Your task to perform on an android device: Clear the shopping cart on bestbuy. Search for "asus zenbook" on bestbuy, select the first entry, add it to the cart, then select checkout. Image 0: 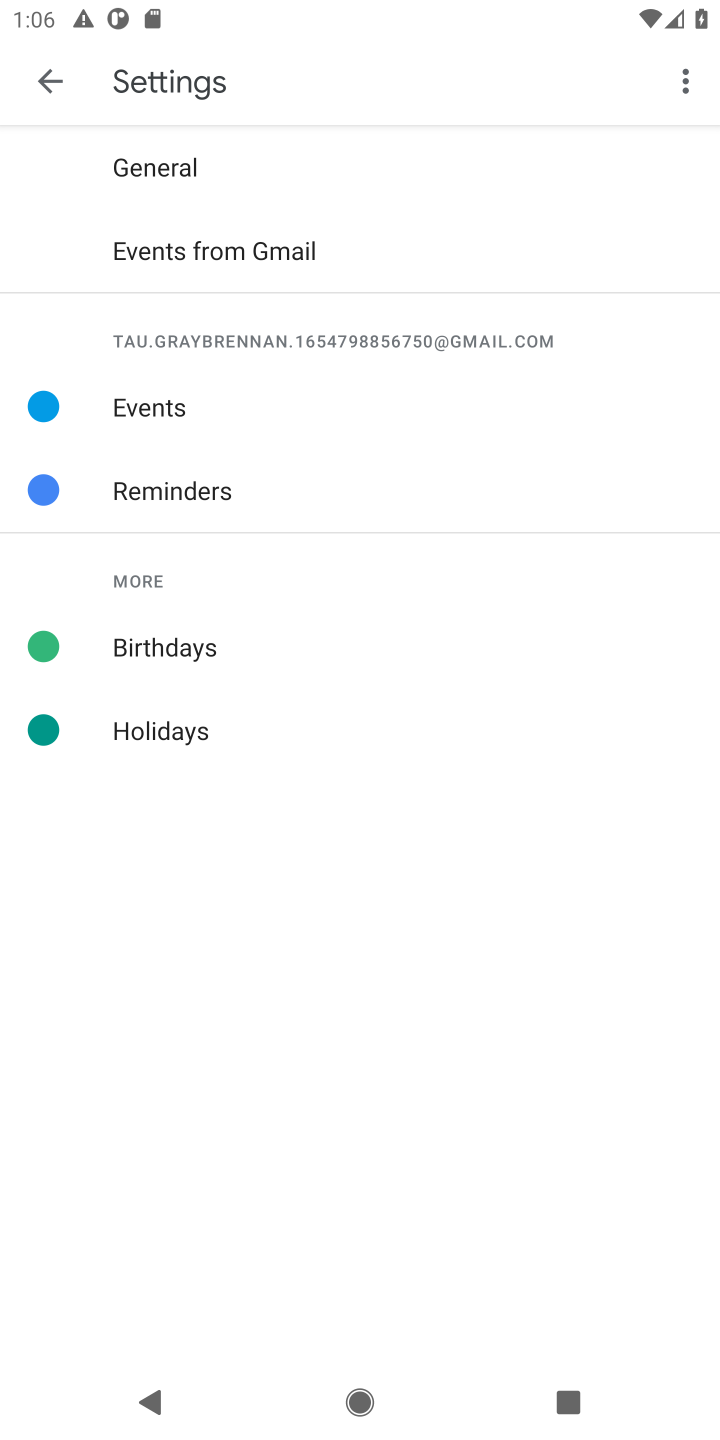
Step 0: press home button
Your task to perform on an android device: Clear the shopping cart on bestbuy. Search for "asus zenbook" on bestbuy, select the first entry, add it to the cart, then select checkout. Image 1: 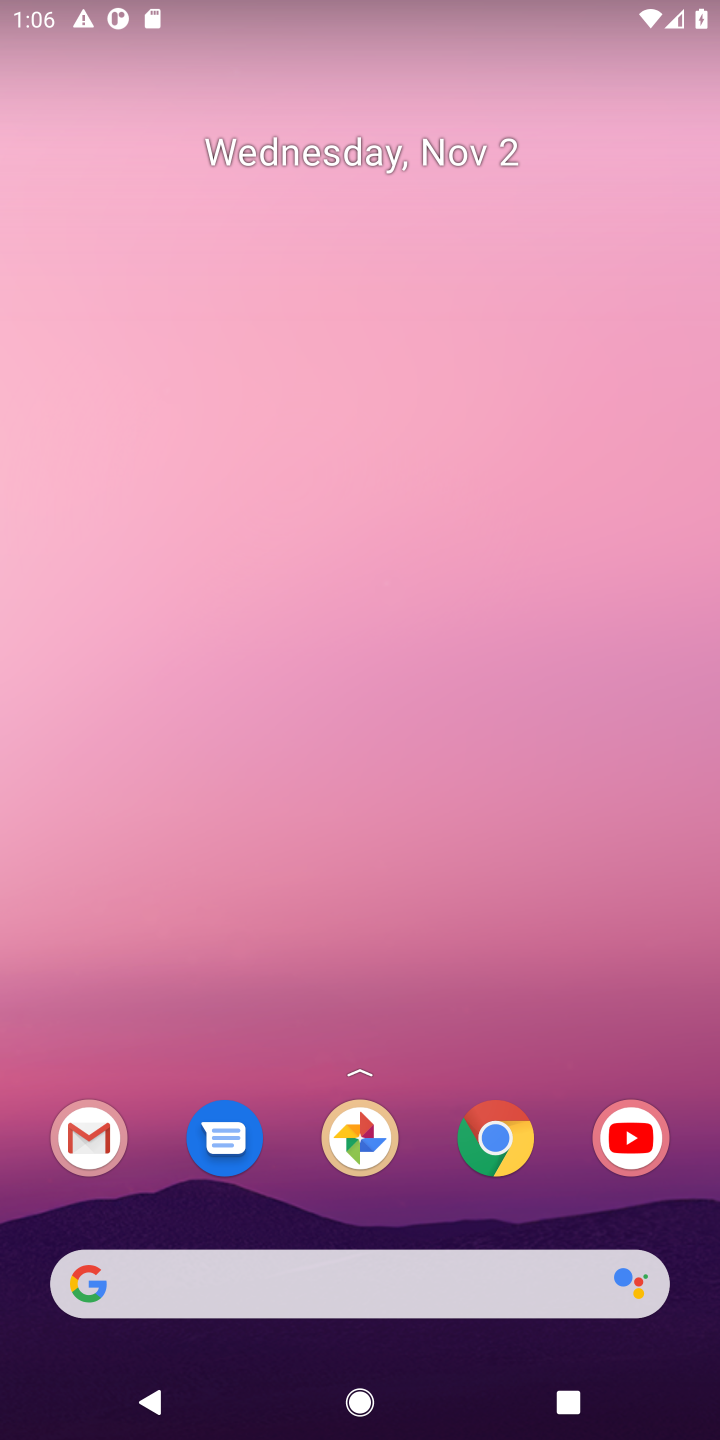
Step 1: click (510, 1166)
Your task to perform on an android device: Clear the shopping cart on bestbuy. Search for "asus zenbook" on bestbuy, select the first entry, add it to the cart, then select checkout. Image 2: 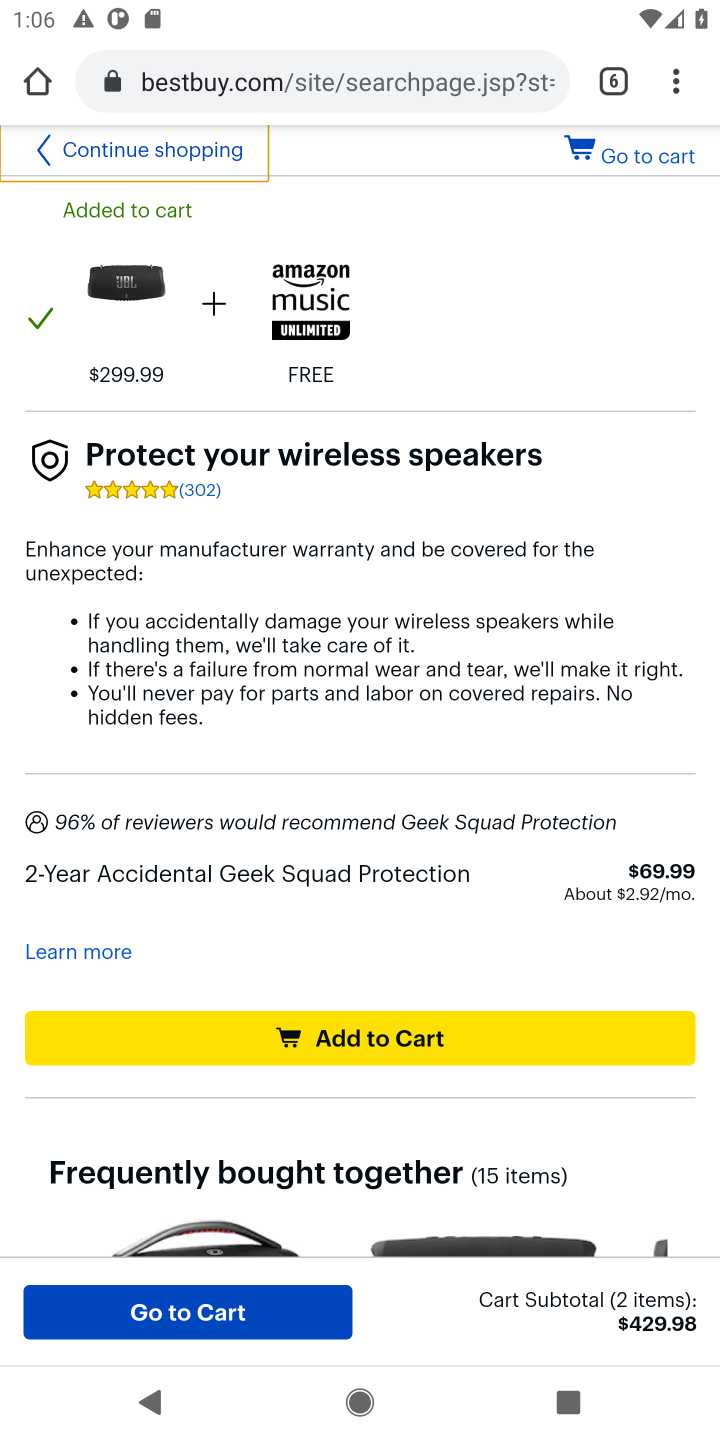
Step 2: click (618, 96)
Your task to perform on an android device: Clear the shopping cart on bestbuy. Search for "asus zenbook" on bestbuy, select the first entry, add it to the cart, then select checkout. Image 3: 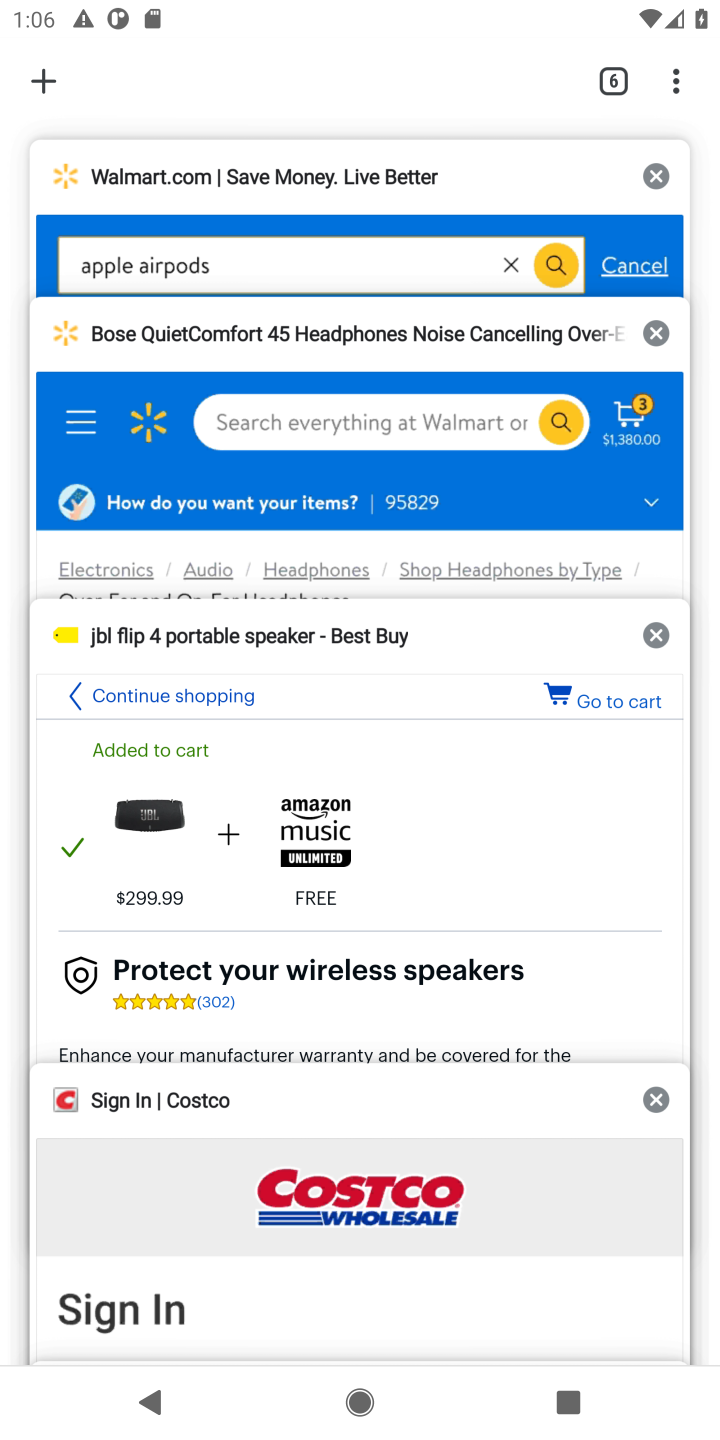
Step 3: click (268, 411)
Your task to perform on an android device: Clear the shopping cart on bestbuy. Search for "asus zenbook" on bestbuy, select the first entry, add it to the cart, then select checkout. Image 4: 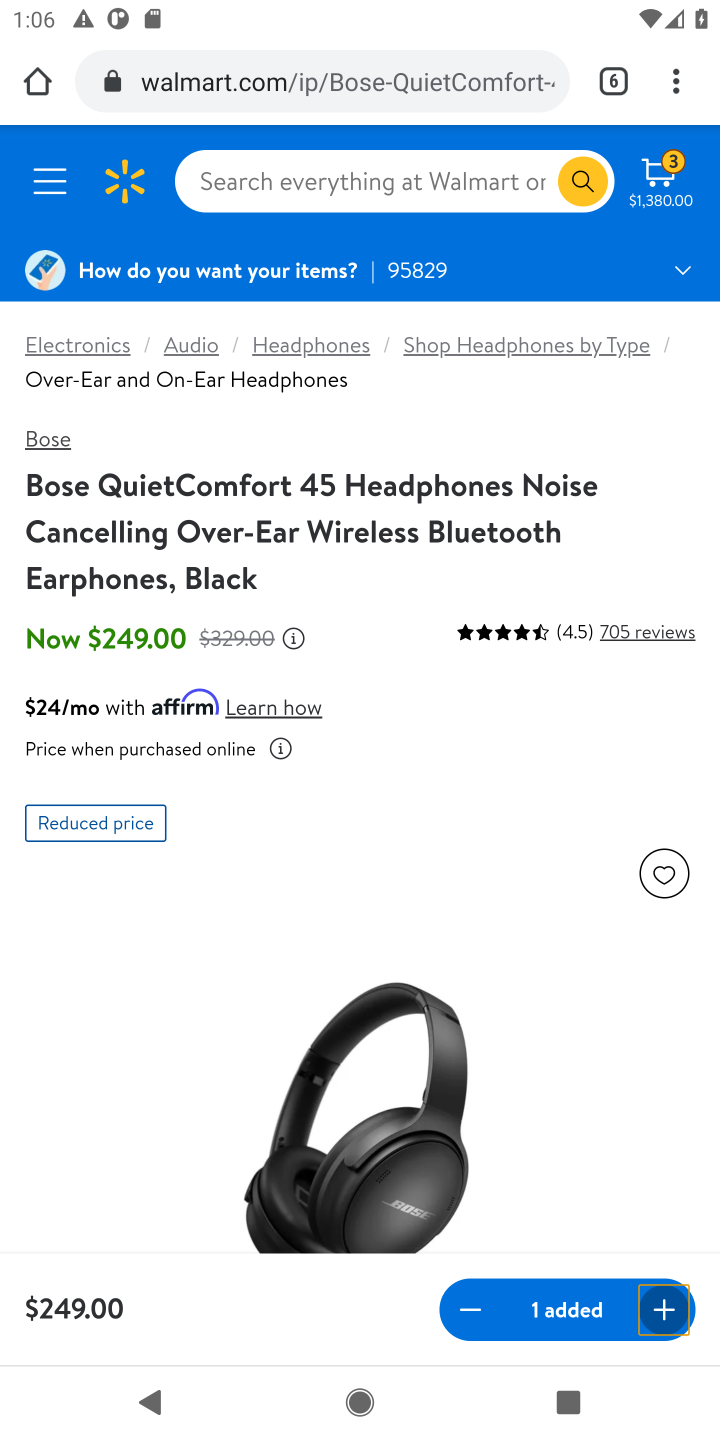
Step 4: click (613, 87)
Your task to perform on an android device: Clear the shopping cart on bestbuy. Search for "asus zenbook" on bestbuy, select the first entry, add it to the cart, then select checkout. Image 5: 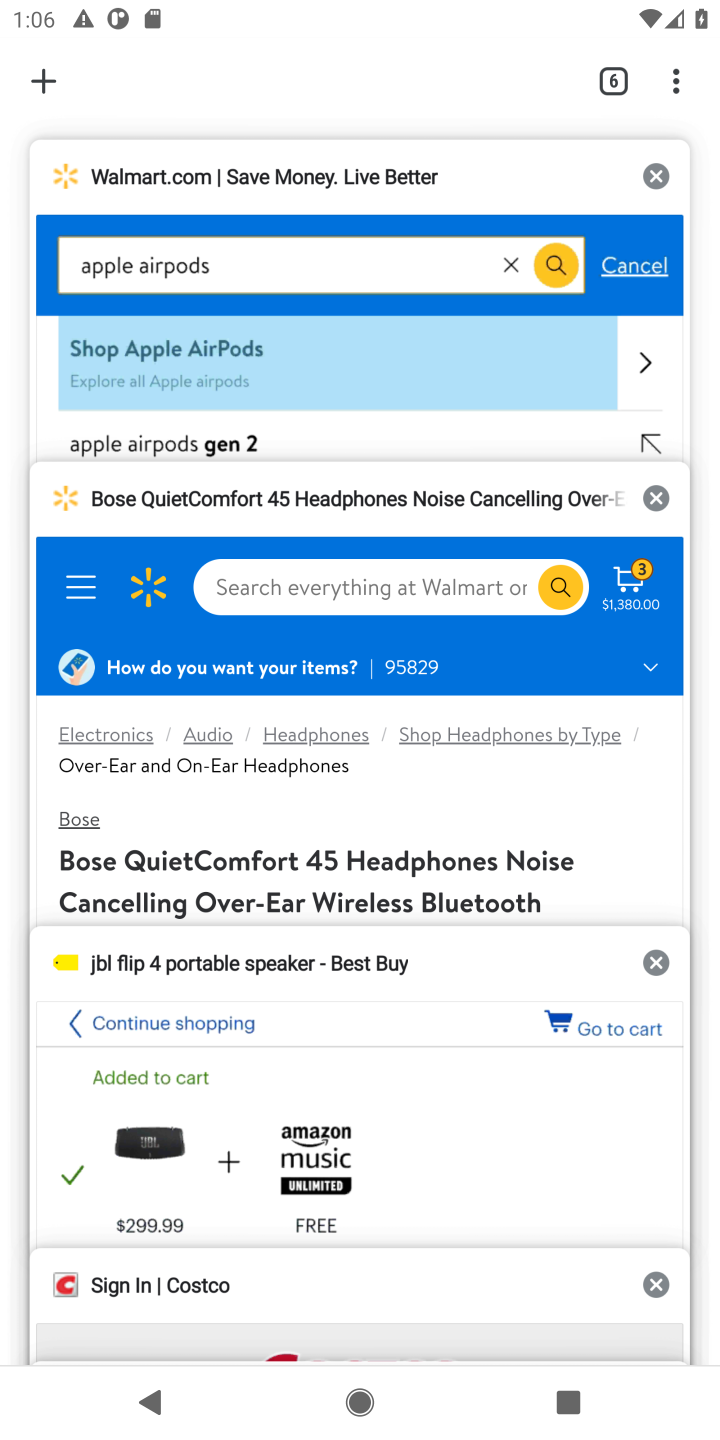
Step 5: click (384, 1174)
Your task to perform on an android device: Clear the shopping cart on bestbuy. Search for "asus zenbook" on bestbuy, select the first entry, add it to the cart, then select checkout. Image 6: 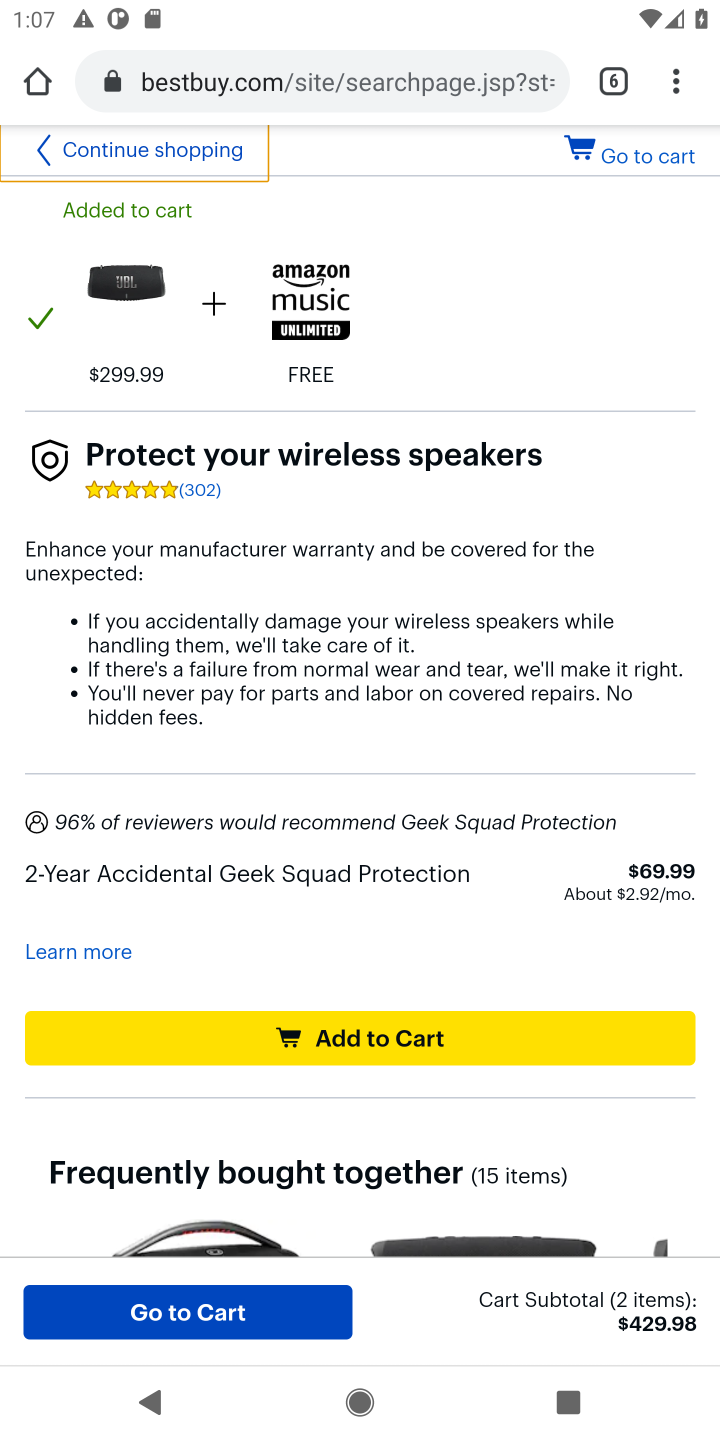
Step 6: click (613, 159)
Your task to perform on an android device: Clear the shopping cart on bestbuy. Search for "asus zenbook" on bestbuy, select the first entry, add it to the cart, then select checkout. Image 7: 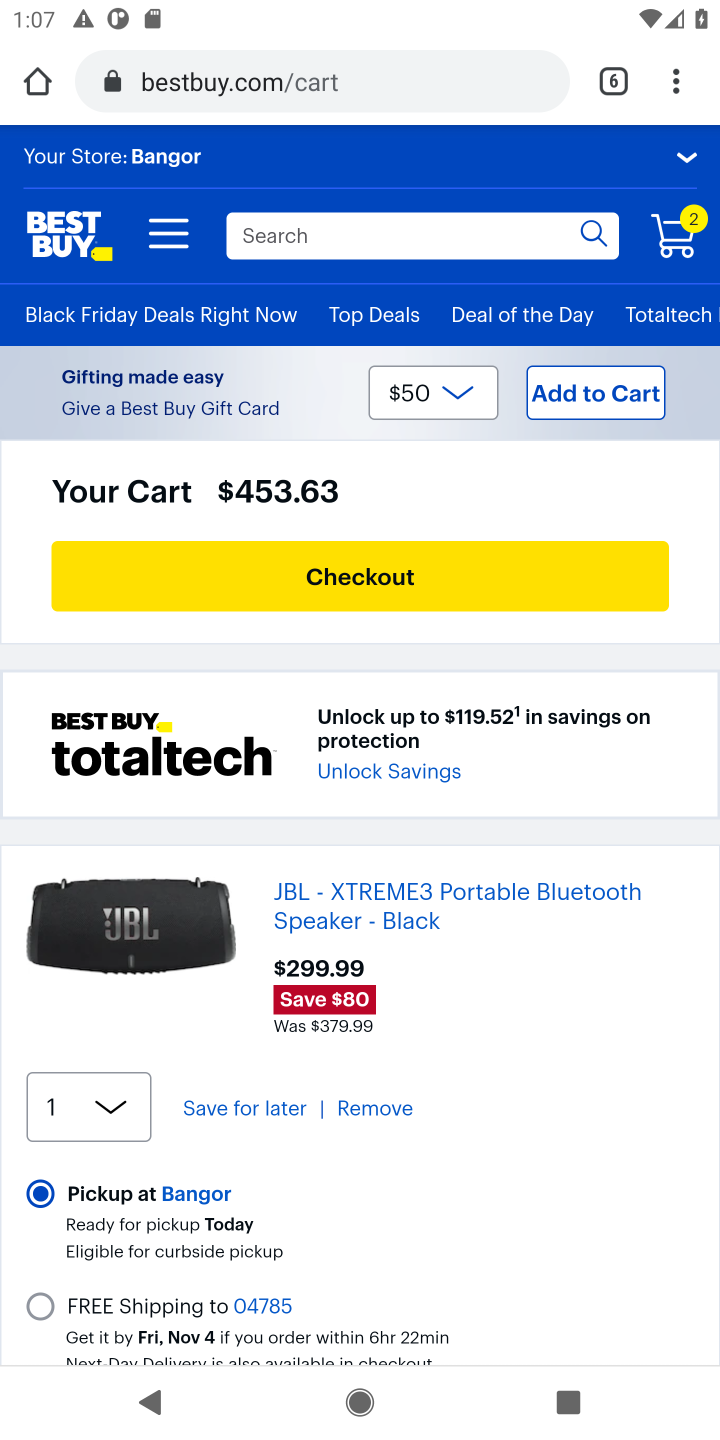
Step 7: click (361, 1103)
Your task to perform on an android device: Clear the shopping cart on bestbuy. Search for "asus zenbook" on bestbuy, select the first entry, add it to the cart, then select checkout. Image 8: 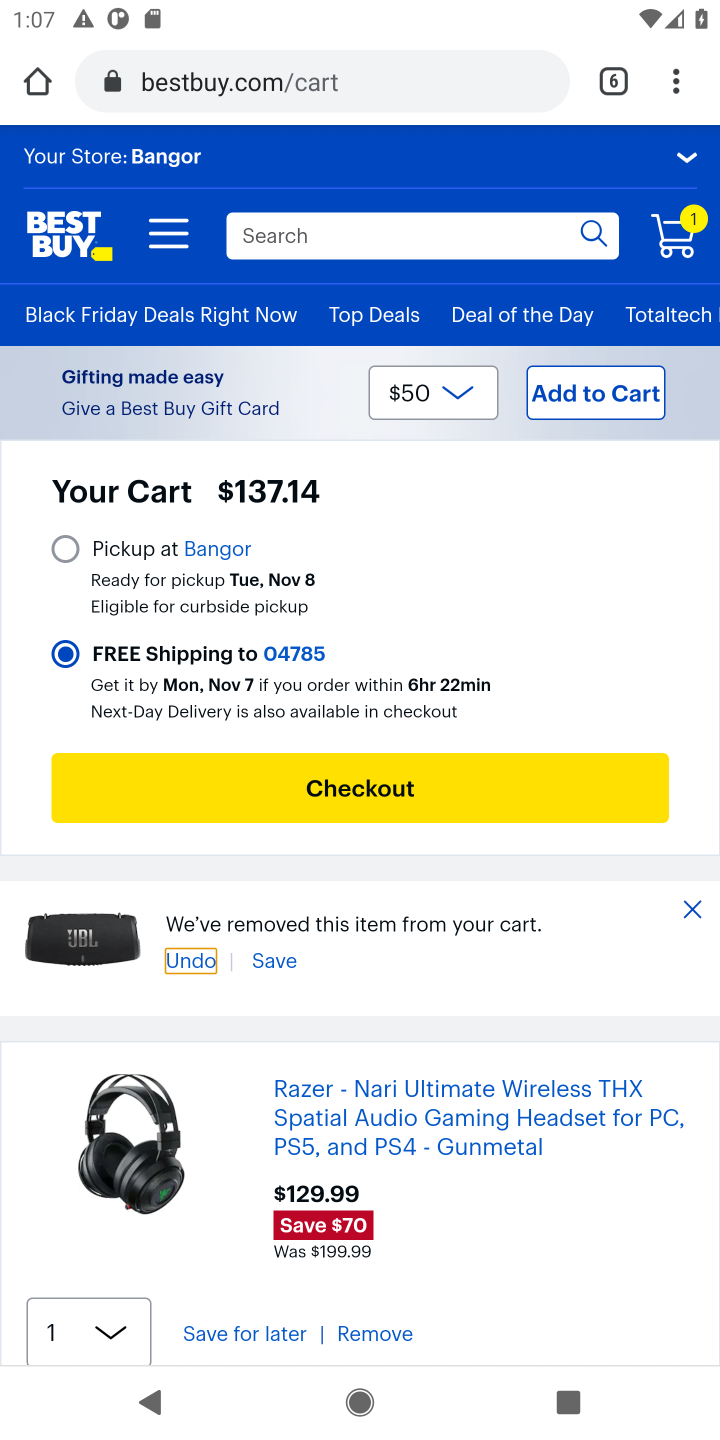
Step 8: click (373, 1330)
Your task to perform on an android device: Clear the shopping cart on bestbuy. Search for "asus zenbook" on bestbuy, select the first entry, add it to the cart, then select checkout. Image 9: 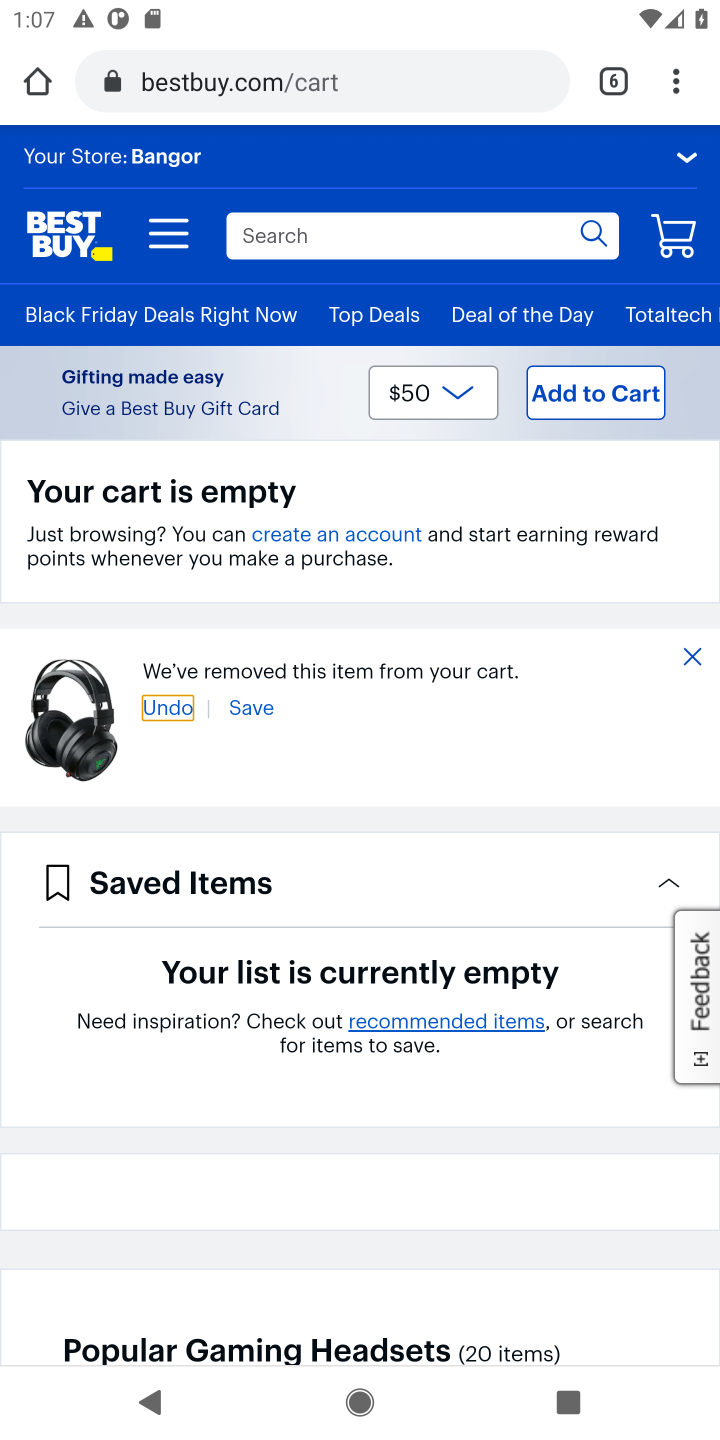
Step 9: click (330, 249)
Your task to perform on an android device: Clear the shopping cart on bestbuy. Search for "asus zenbook" on bestbuy, select the first entry, add it to the cart, then select checkout. Image 10: 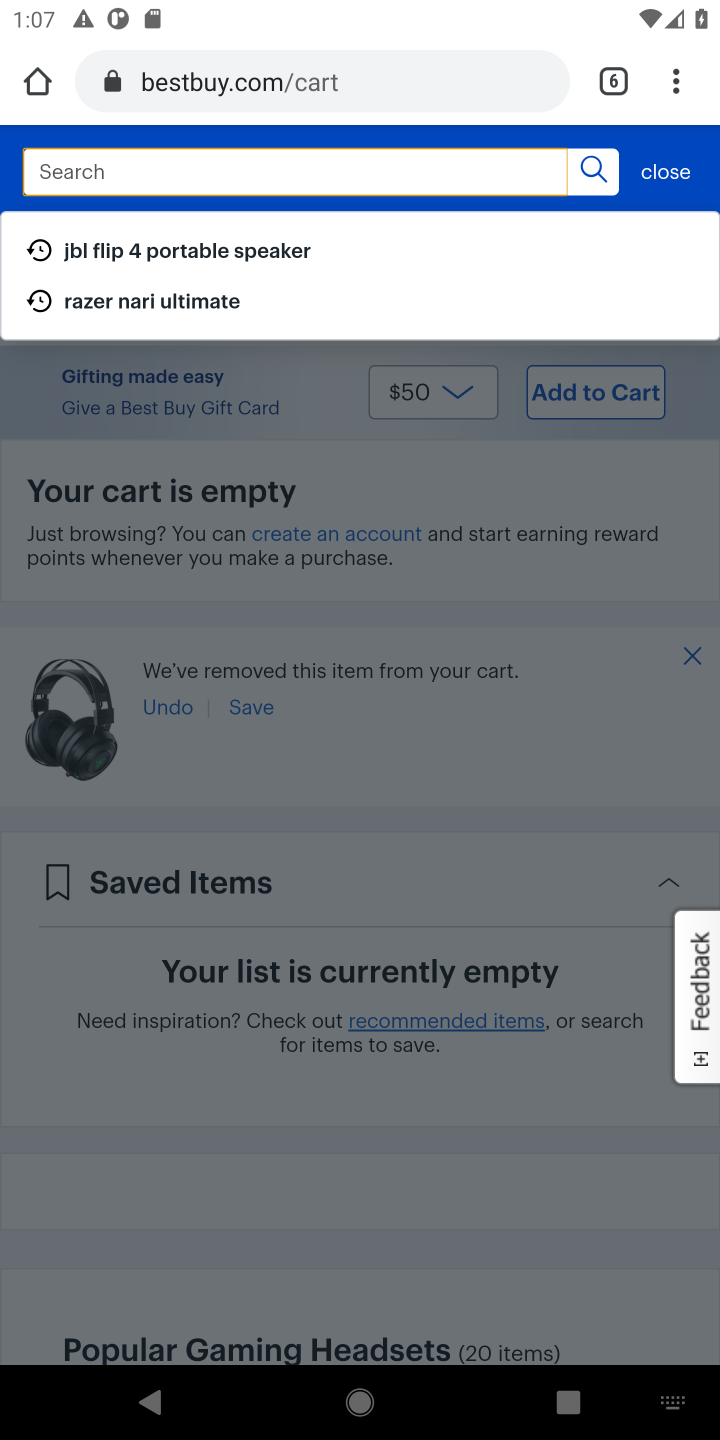
Step 10: type "asus zenbook"
Your task to perform on an android device: Clear the shopping cart on bestbuy. Search for "asus zenbook" on bestbuy, select the first entry, add it to the cart, then select checkout. Image 11: 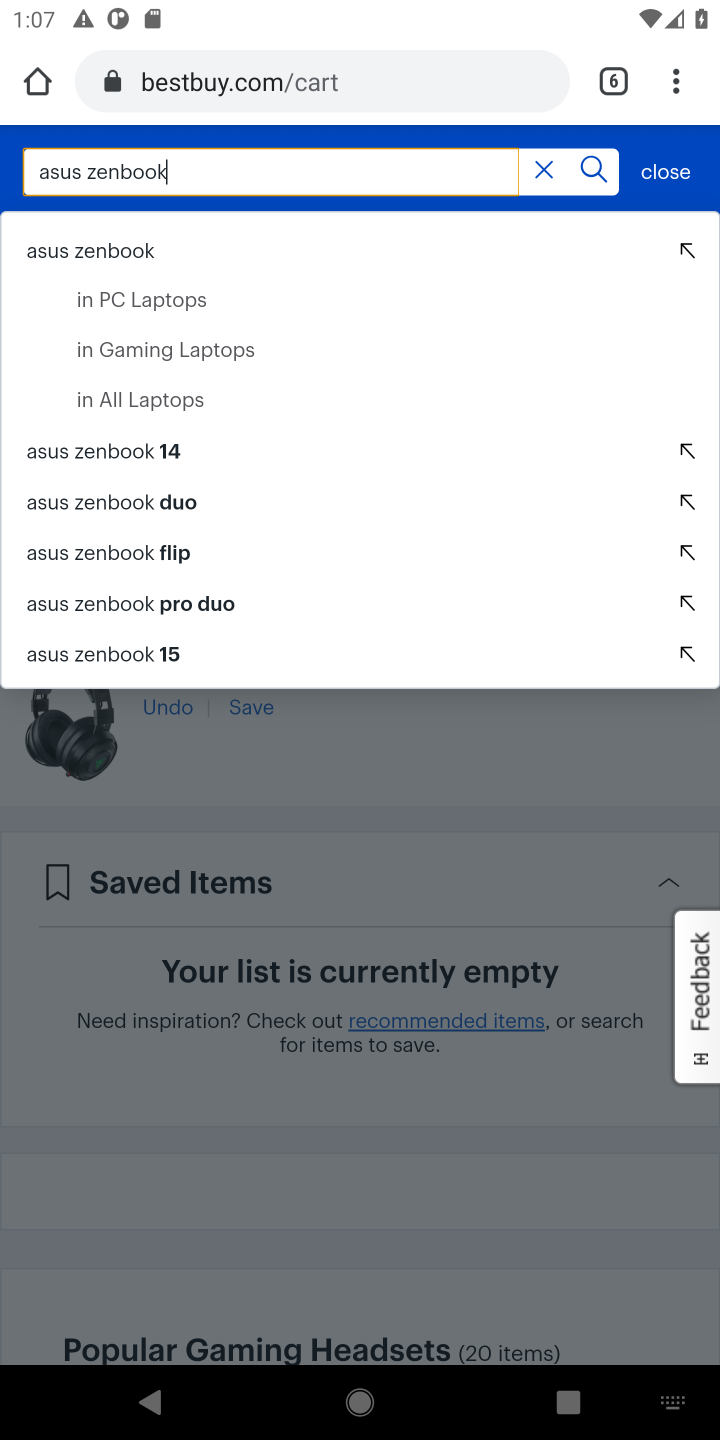
Step 11: click (134, 266)
Your task to perform on an android device: Clear the shopping cart on bestbuy. Search for "asus zenbook" on bestbuy, select the first entry, add it to the cart, then select checkout. Image 12: 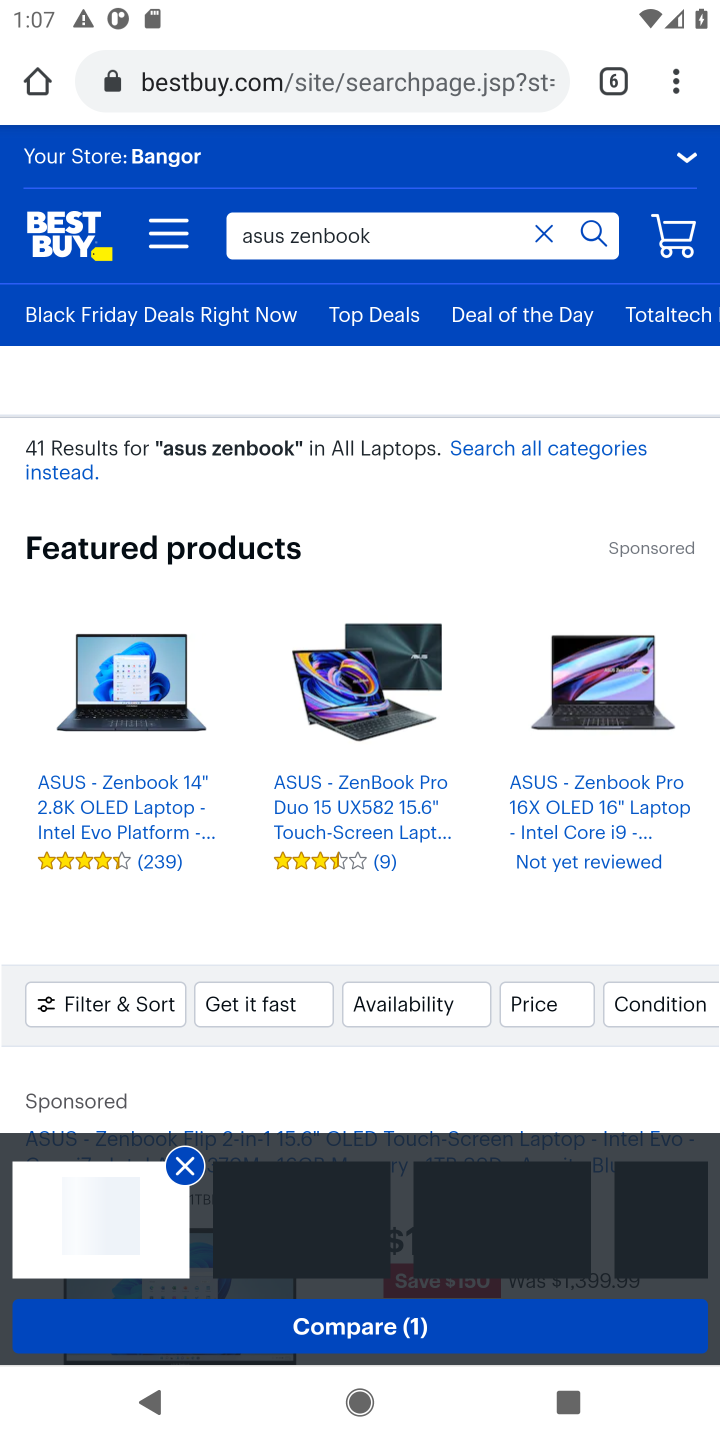
Step 12: drag from (534, 1256) to (498, 532)
Your task to perform on an android device: Clear the shopping cart on bestbuy. Search for "asus zenbook" on bestbuy, select the first entry, add it to the cart, then select checkout. Image 13: 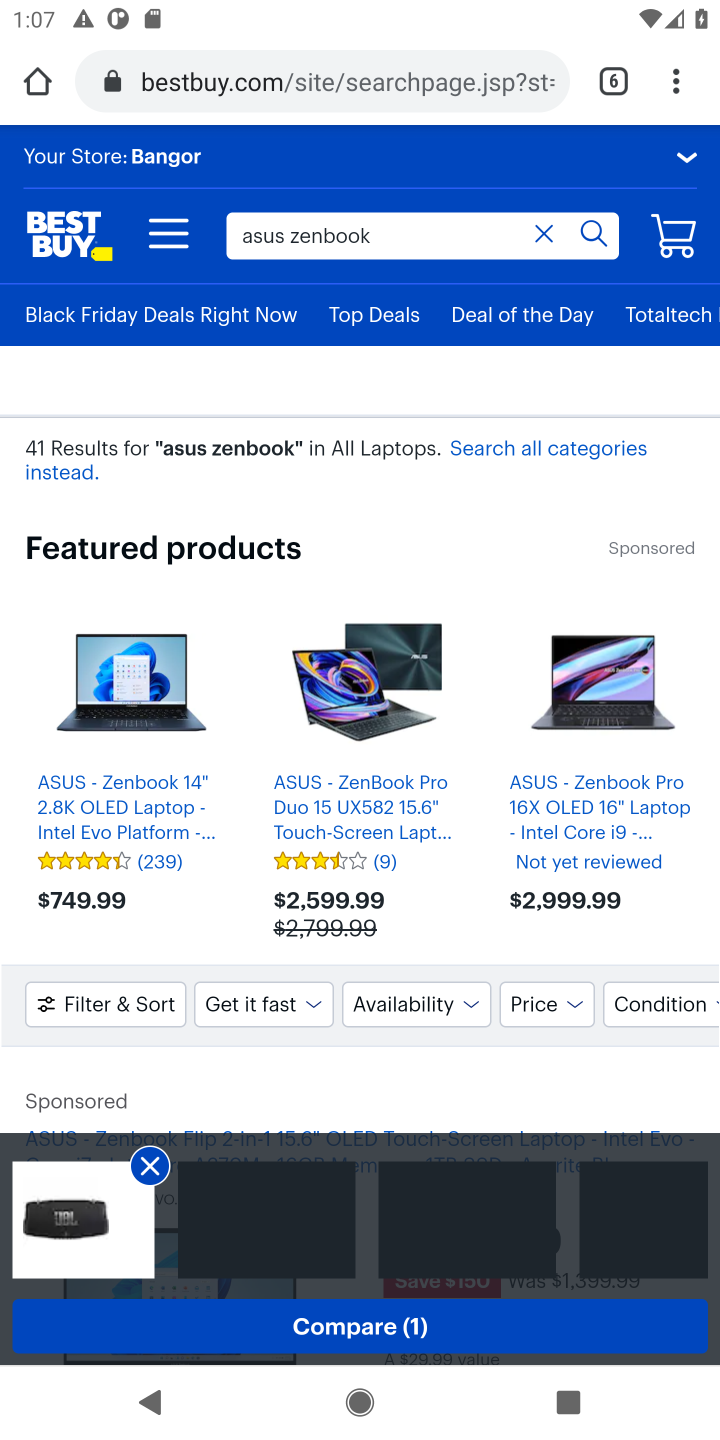
Step 13: click (158, 1169)
Your task to perform on an android device: Clear the shopping cart on bestbuy. Search for "asus zenbook" on bestbuy, select the first entry, add it to the cart, then select checkout. Image 14: 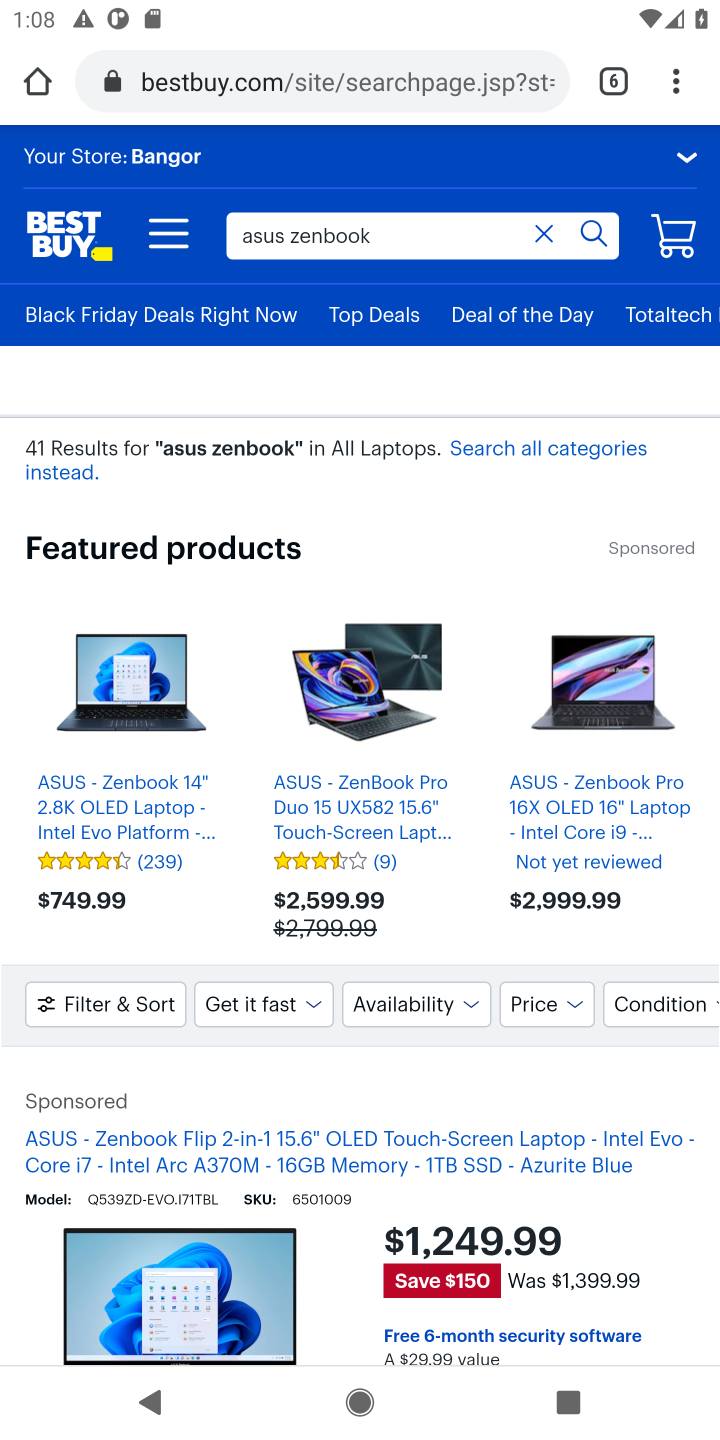
Step 14: drag from (354, 1053) to (365, 363)
Your task to perform on an android device: Clear the shopping cart on bestbuy. Search for "asus zenbook" on bestbuy, select the first entry, add it to the cart, then select checkout. Image 15: 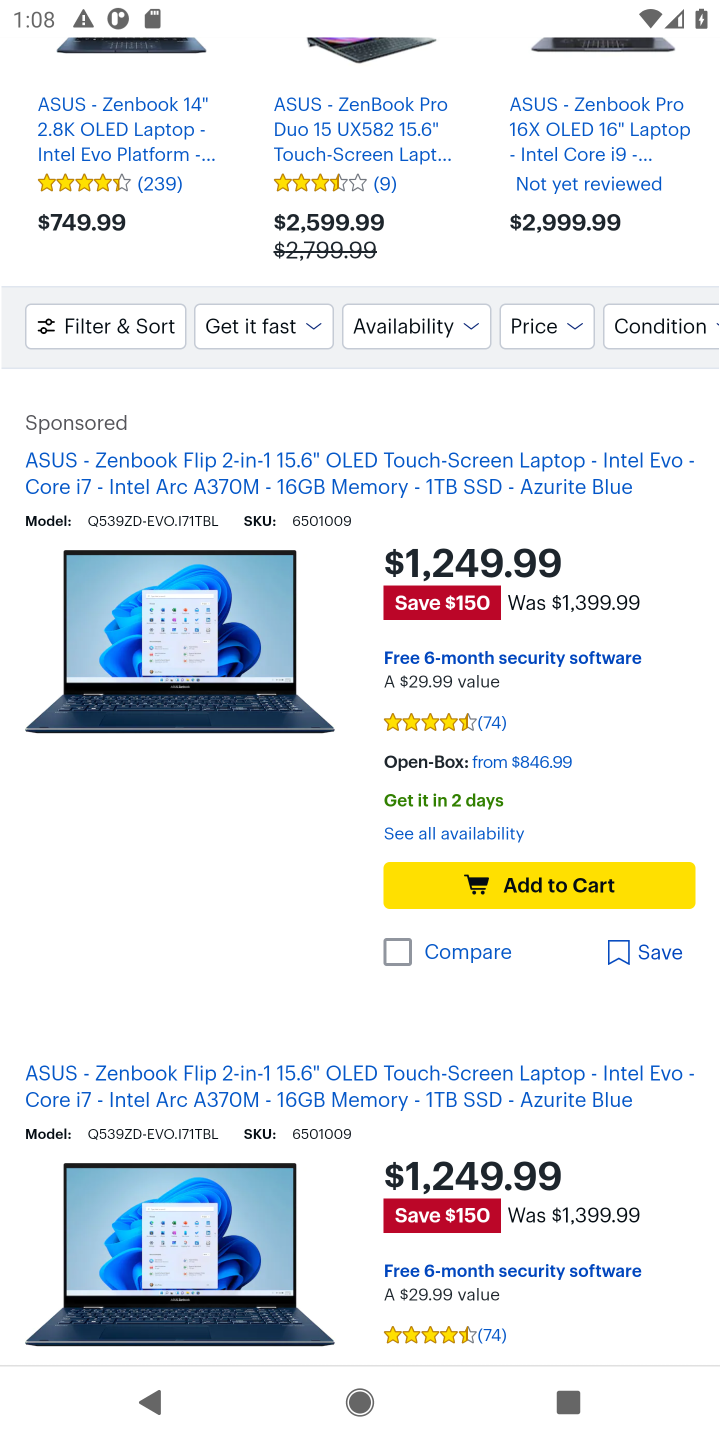
Step 15: click (553, 880)
Your task to perform on an android device: Clear the shopping cart on bestbuy. Search for "asus zenbook" on bestbuy, select the first entry, add it to the cart, then select checkout. Image 16: 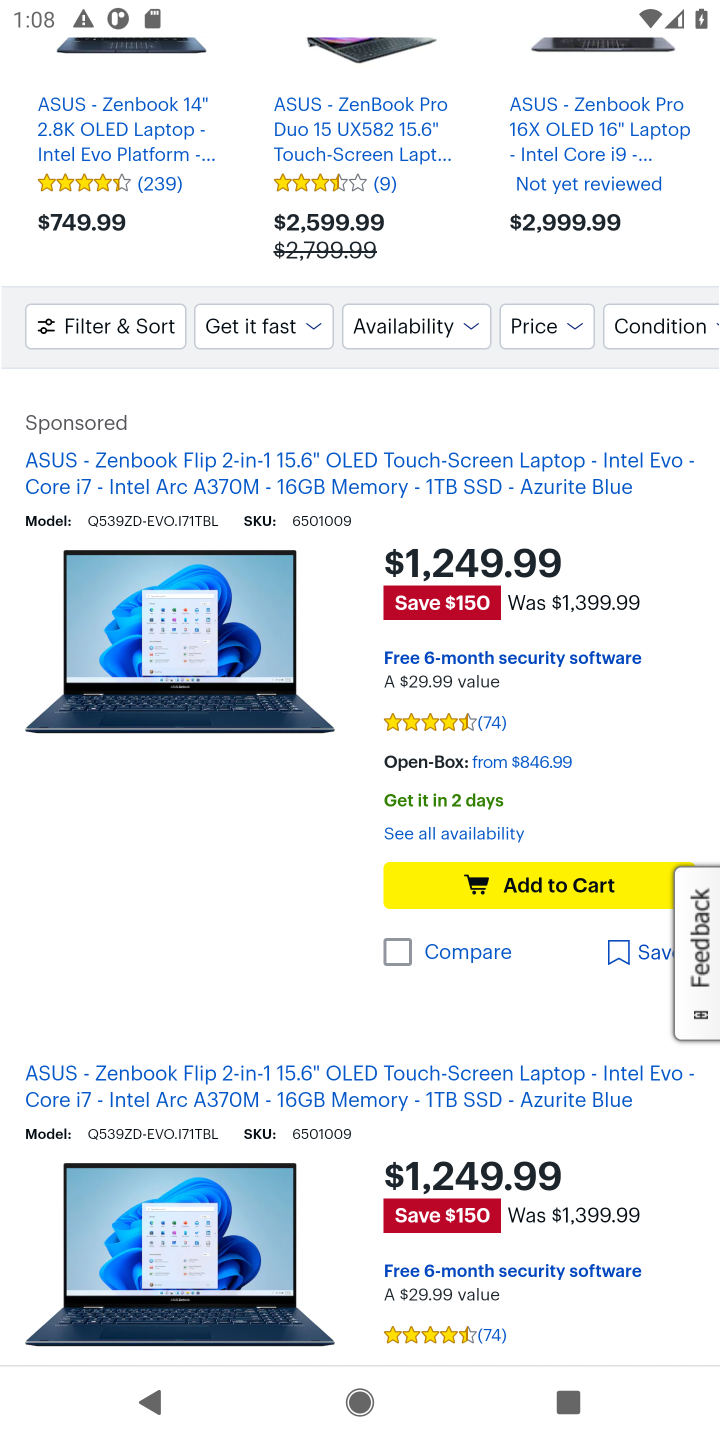
Step 16: task complete